Your task to perform on an android device: toggle show notifications on the lock screen Image 0: 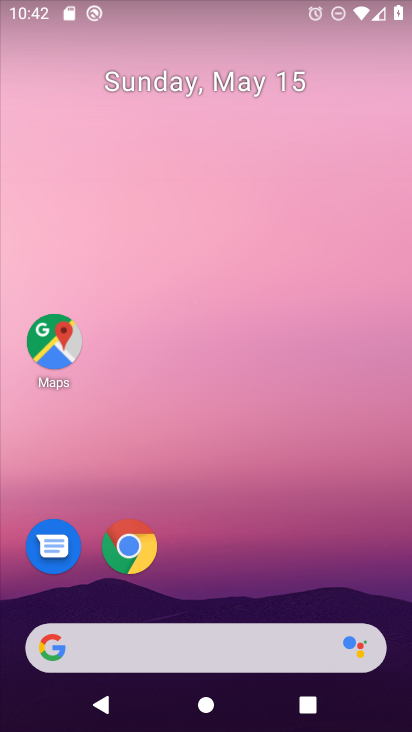
Step 0: drag from (308, 290) to (327, 169)
Your task to perform on an android device: toggle show notifications on the lock screen Image 1: 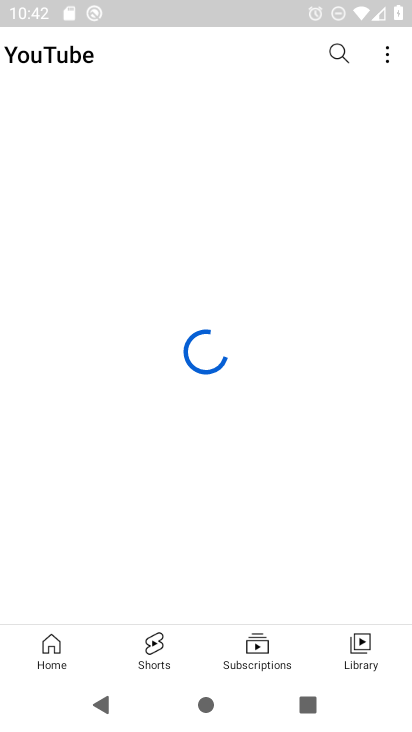
Step 1: press home button
Your task to perform on an android device: toggle show notifications on the lock screen Image 2: 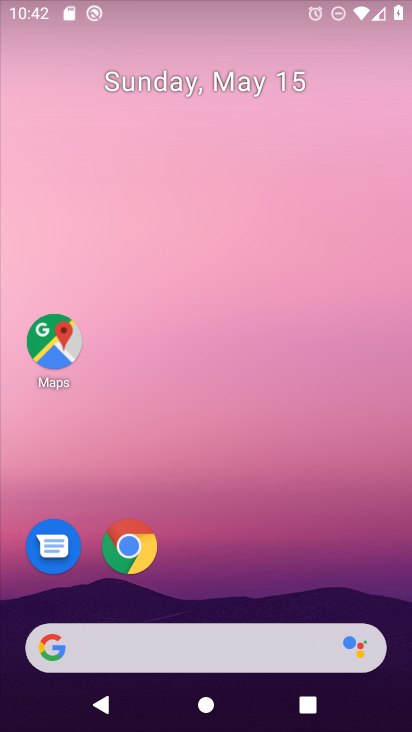
Step 2: drag from (307, 546) to (327, 138)
Your task to perform on an android device: toggle show notifications on the lock screen Image 3: 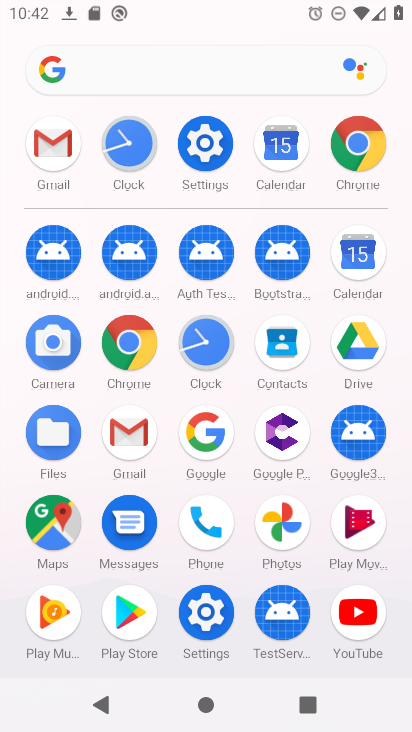
Step 3: click (201, 145)
Your task to perform on an android device: toggle show notifications on the lock screen Image 4: 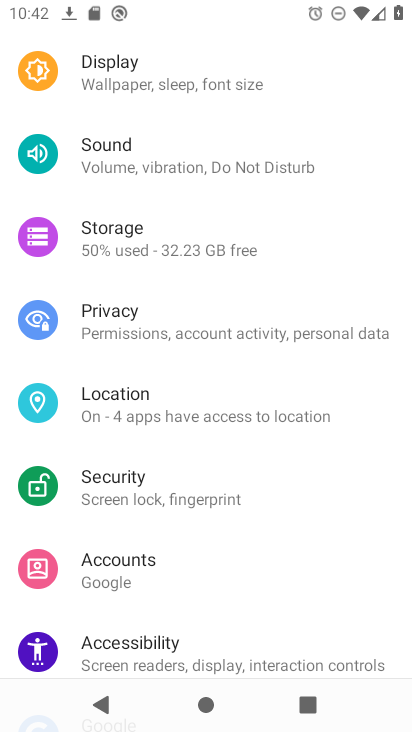
Step 4: drag from (223, 255) to (247, 579)
Your task to perform on an android device: toggle show notifications on the lock screen Image 5: 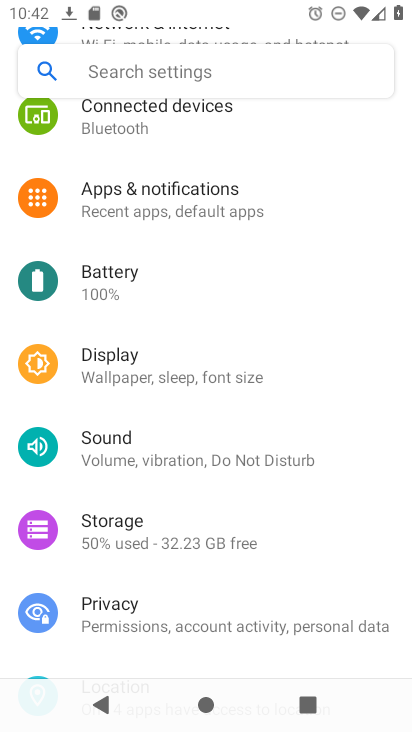
Step 5: click (204, 208)
Your task to perform on an android device: toggle show notifications on the lock screen Image 6: 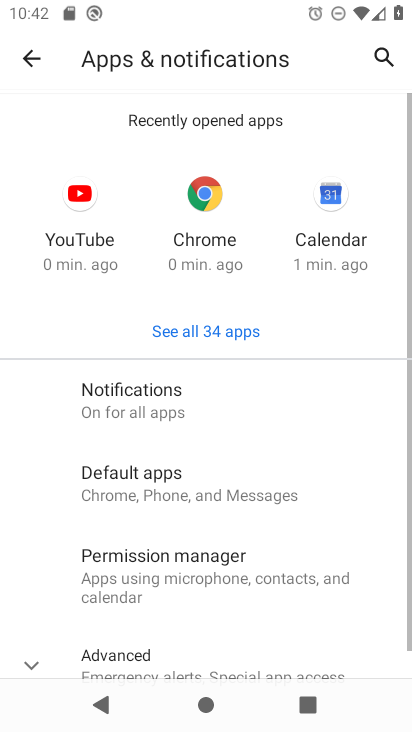
Step 6: click (141, 413)
Your task to perform on an android device: toggle show notifications on the lock screen Image 7: 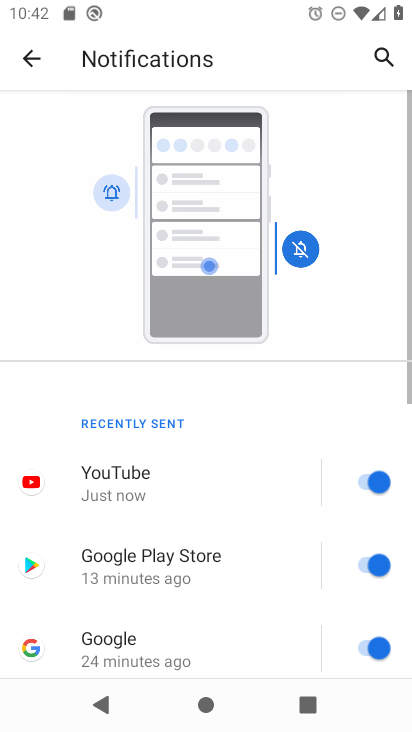
Step 7: drag from (262, 496) to (342, 89)
Your task to perform on an android device: toggle show notifications on the lock screen Image 8: 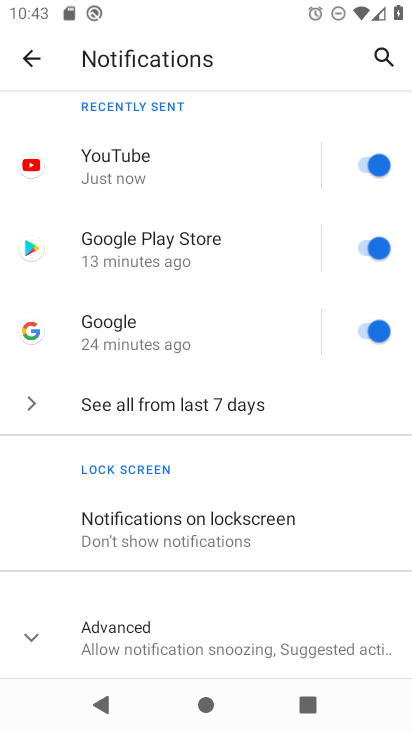
Step 8: drag from (242, 518) to (290, 321)
Your task to perform on an android device: toggle show notifications on the lock screen Image 9: 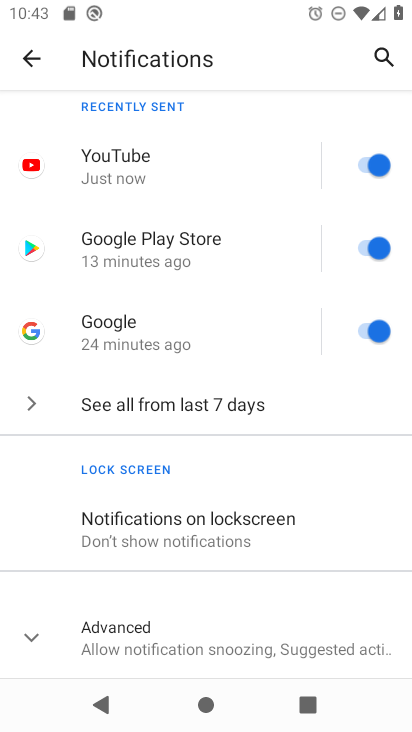
Step 9: click (202, 537)
Your task to perform on an android device: toggle show notifications on the lock screen Image 10: 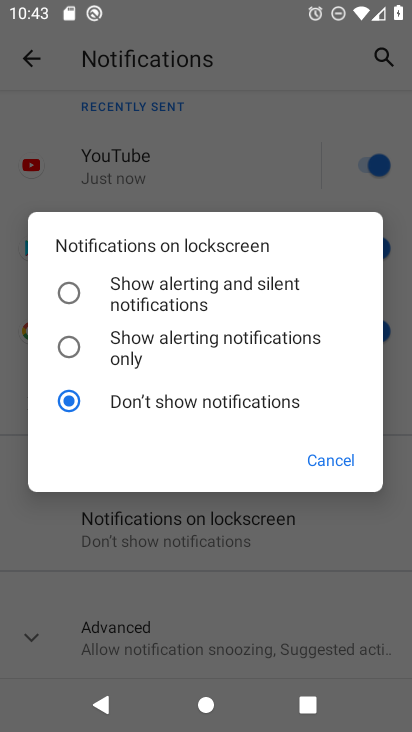
Step 10: click (209, 331)
Your task to perform on an android device: toggle show notifications on the lock screen Image 11: 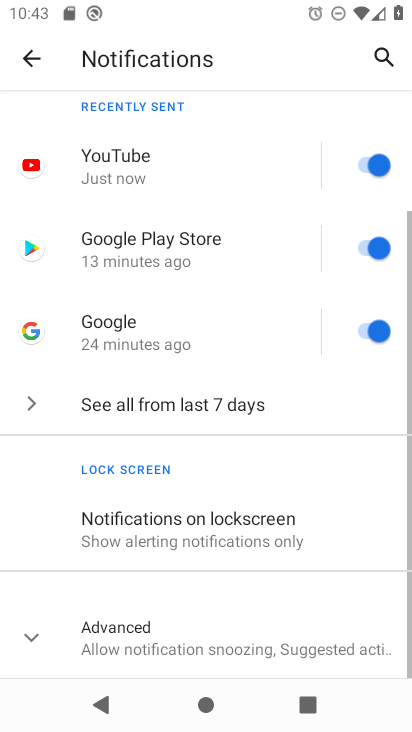
Step 11: task complete